Your task to perform on an android device: Open sound settings Image 0: 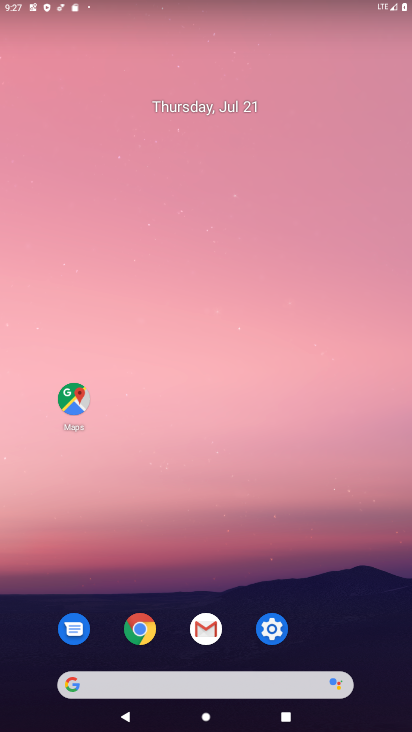
Step 0: click (281, 634)
Your task to perform on an android device: Open sound settings Image 1: 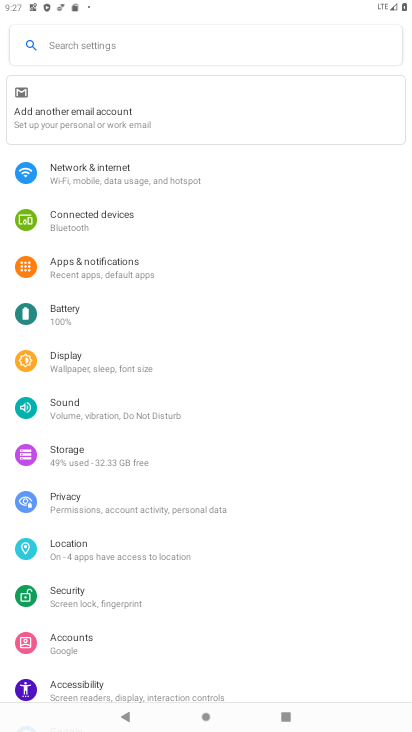
Step 1: click (96, 412)
Your task to perform on an android device: Open sound settings Image 2: 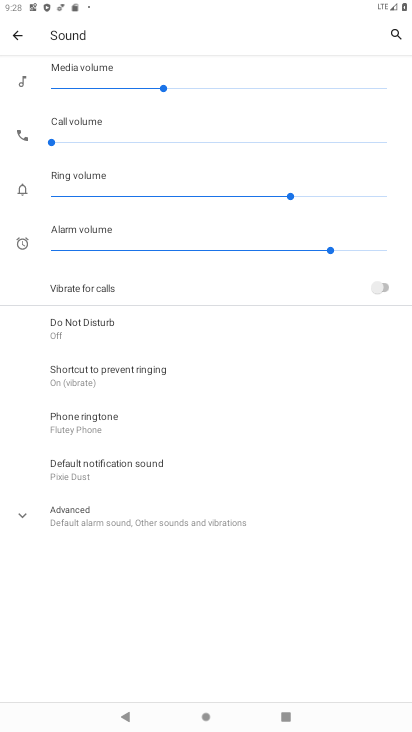
Step 2: task complete